Your task to perform on an android device: Go to Google Image 0: 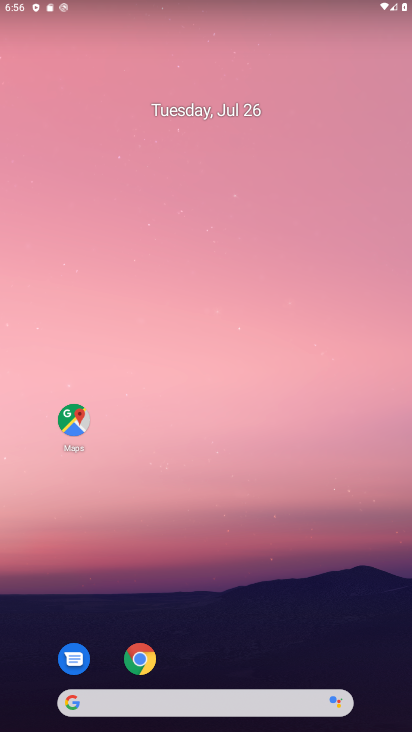
Step 0: click (76, 707)
Your task to perform on an android device: Go to Google Image 1: 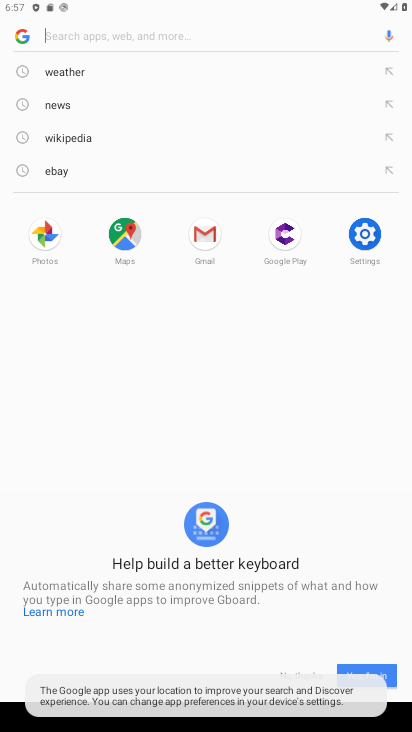
Step 1: click (24, 35)
Your task to perform on an android device: Go to Google Image 2: 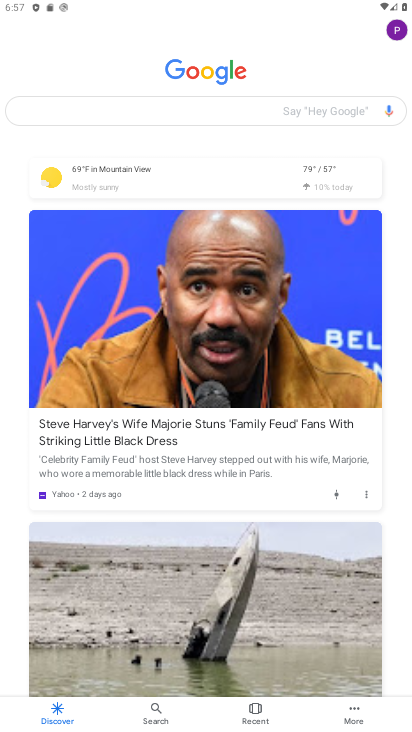
Step 2: task complete